Your task to perform on an android device: Show me productivity apps on the Play Store Image 0: 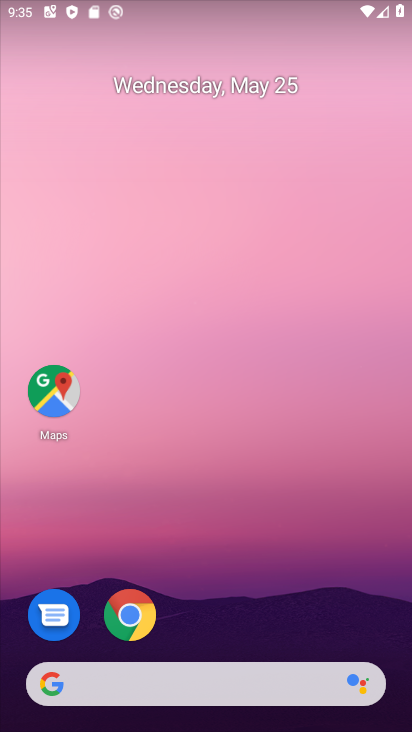
Step 0: drag from (253, 546) to (272, 2)
Your task to perform on an android device: Show me productivity apps on the Play Store Image 1: 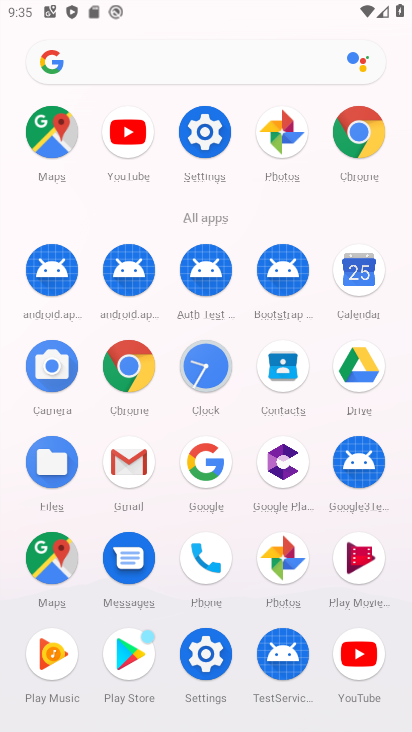
Step 1: click (130, 643)
Your task to perform on an android device: Show me productivity apps on the Play Store Image 2: 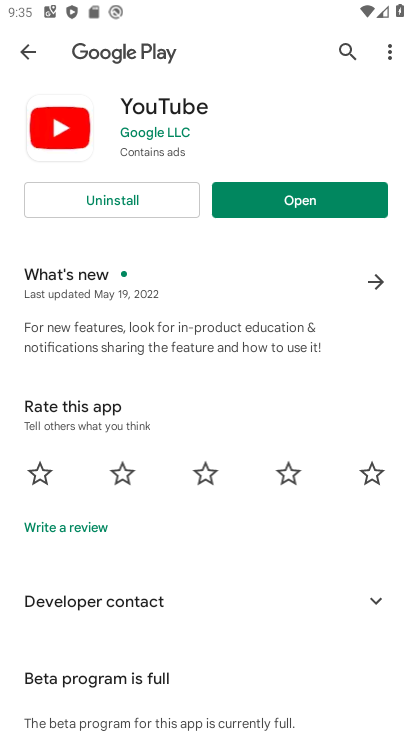
Step 2: click (25, 47)
Your task to perform on an android device: Show me productivity apps on the Play Store Image 3: 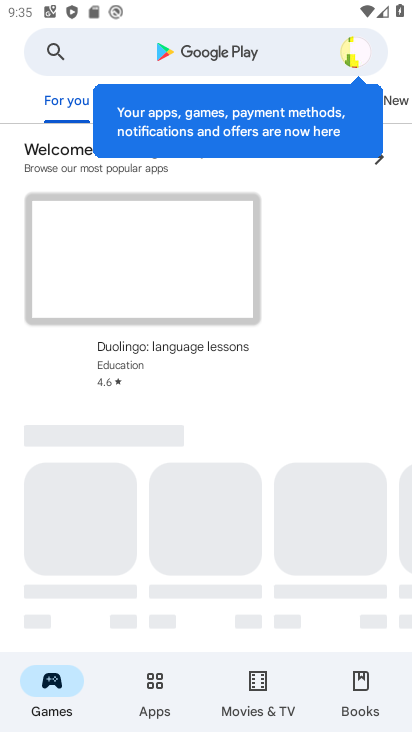
Step 3: click (158, 698)
Your task to perform on an android device: Show me productivity apps on the Play Store Image 4: 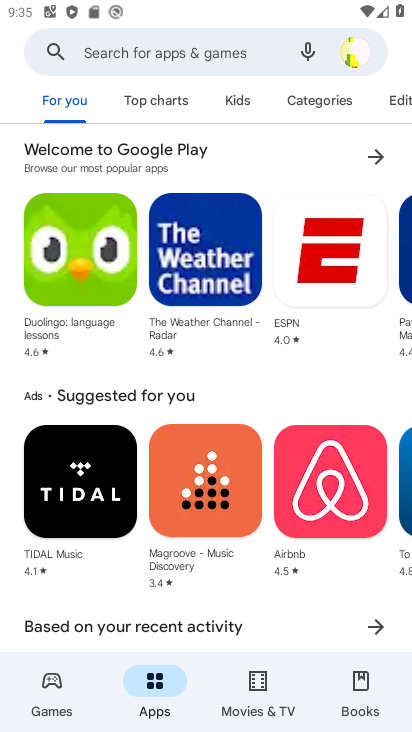
Step 4: click (327, 92)
Your task to perform on an android device: Show me productivity apps on the Play Store Image 5: 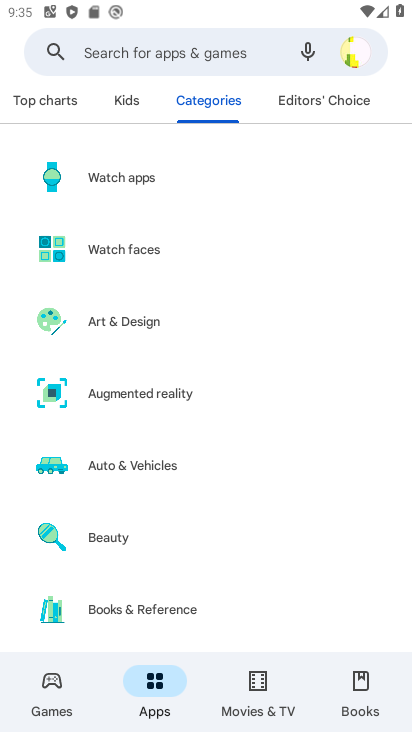
Step 5: drag from (232, 543) to (226, 99)
Your task to perform on an android device: Show me productivity apps on the Play Store Image 6: 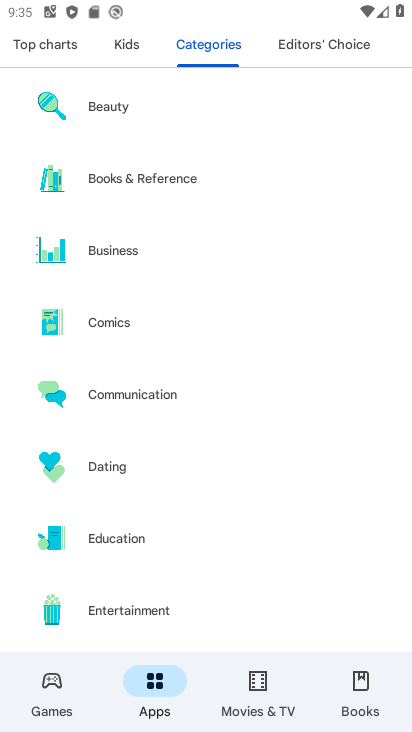
Step 6: drag from (210, 565) to (253, 64)
Your task to perform on an android device: Show me productivity apps on the Play Store Image 7: 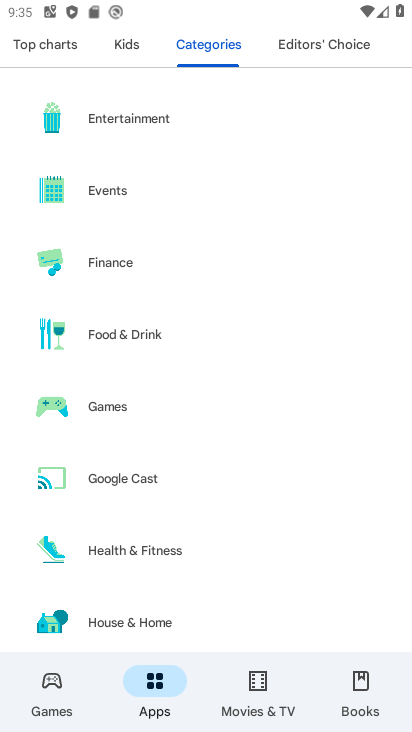
Step 7: drag from (216, 554) to (291, 75)
Your task to perform on an android device: Show me productivity apps on the Play Store Image 8: 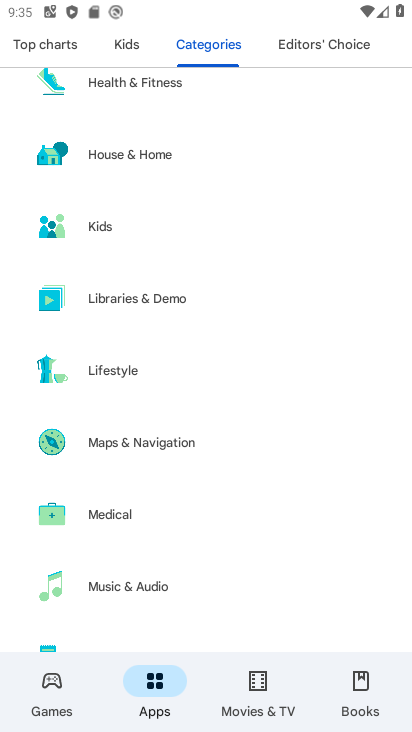
Step 8: drag from (209, 592) to (307, 45)
Your task to perform on an android device: Show me productivity apps on the Play Store Image 9: 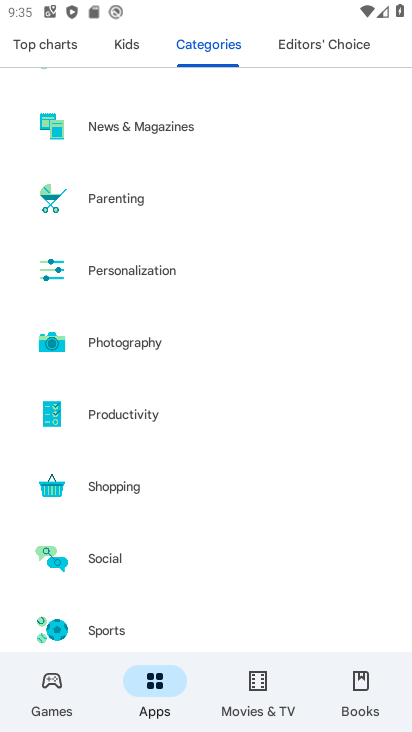
Step 9: click (160, 404)
Your task to perform on an android device: Show me productivity apps on the Play Store Image 10: 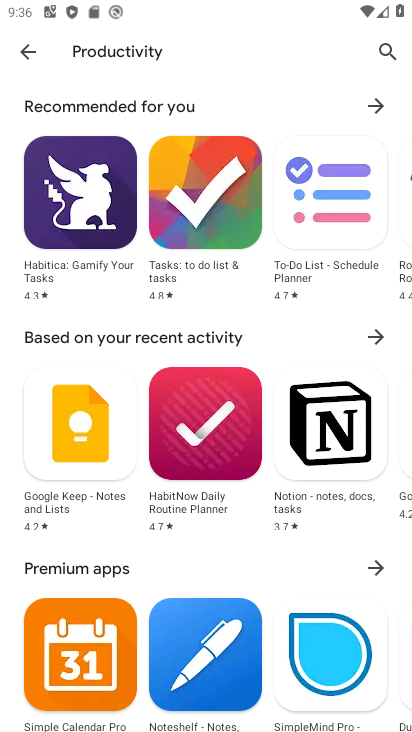
Step 10: task complete